Your task to perform on an android device: Search for pizza restaurants on Maps Image 0: 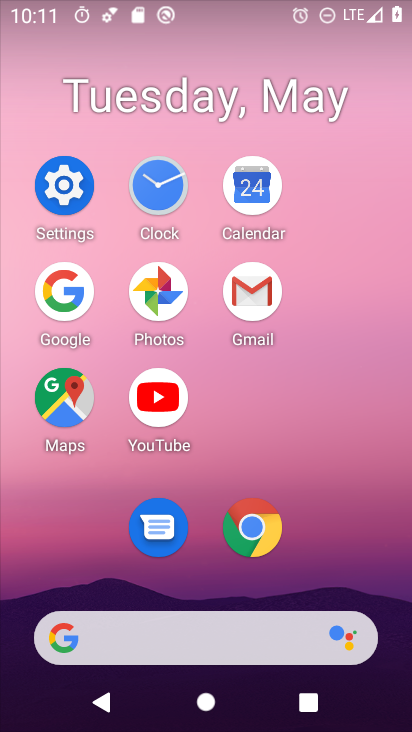
Step 0: click (70, 407)
Your task to perform on an android device: Search for pizza restaurants on Maps Image 1: 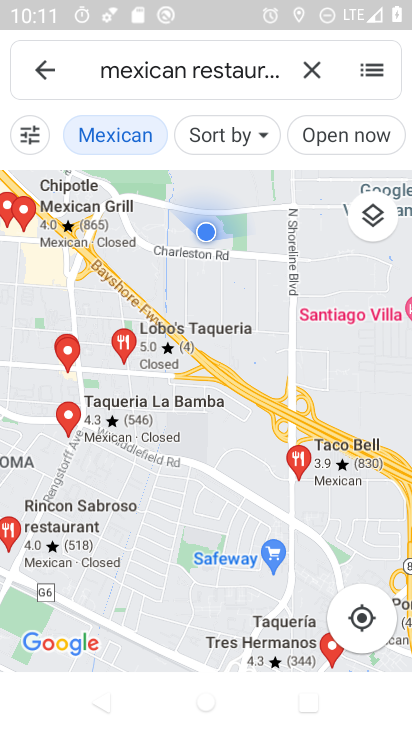
Step 1: click (318, 68)
Your task to perform on an android device: Search for pizza restaurants on Maps Image 2: 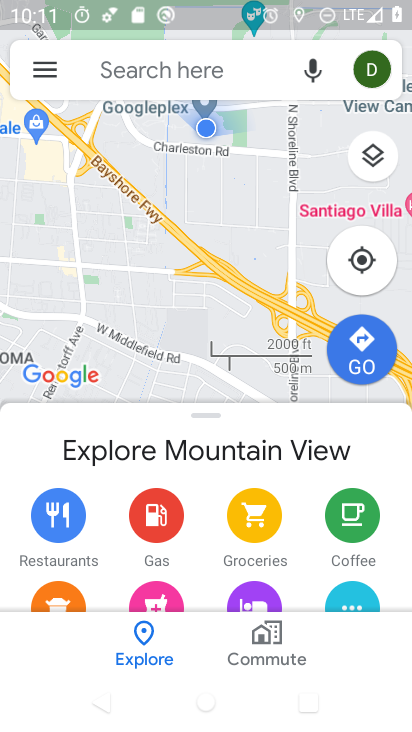
Step 2: click (139, 61)
Your task to perform on an android device: Search for pizza restaurants on Maps Image 3: 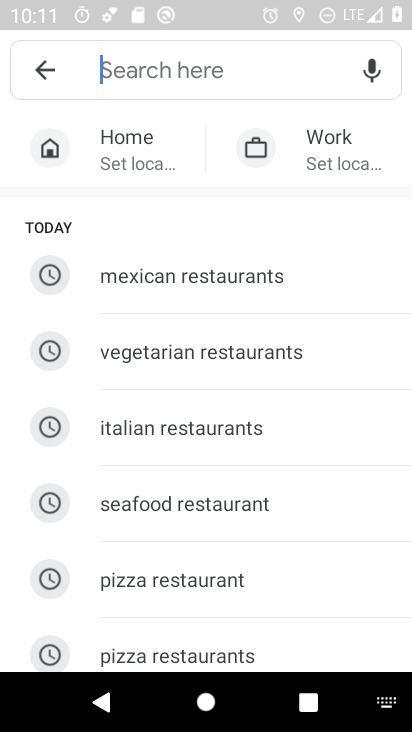
Step 3: click (240, 644)
Your task to perform on an android device: Search for pizza restaurants on Maps Image 4: 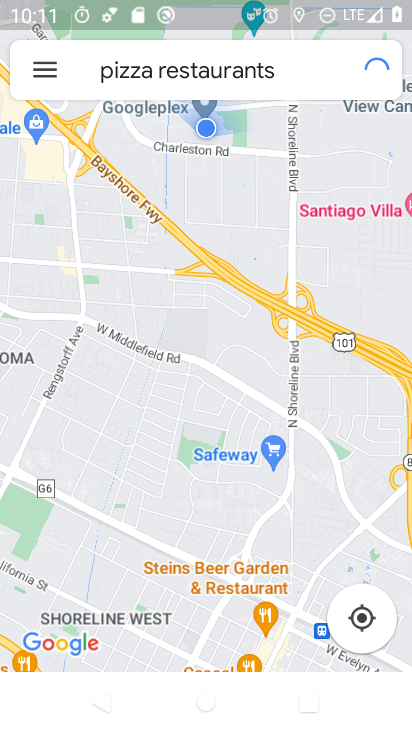
Step 4: task complete